Your task to perform on an android device: Open the calendar app, open the side menu, and click the "Day" option Image 0: 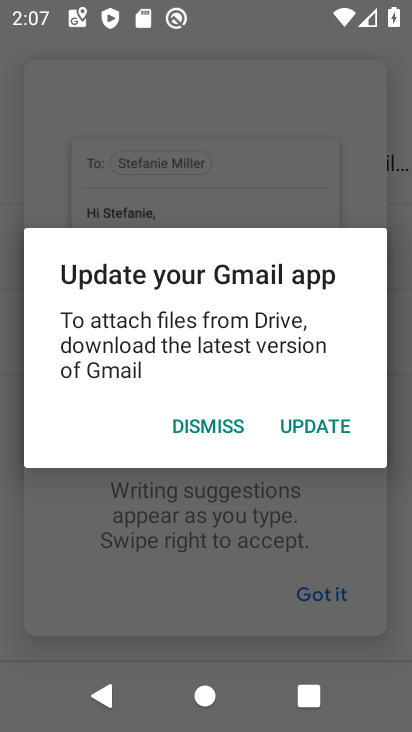
Step 0: press home button
Your task to perform on an android device: Open the calendar app, open the side menu, and click the "Day" option Image 1: 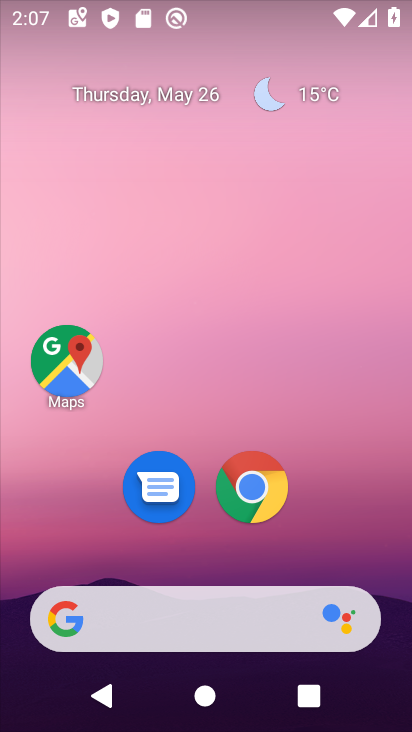
Step 1: drag from (219, 556) to (188, 193)
Your task to perform on an android device: Open the calendar app, open the side menu, and click the "Day" option Image 2: 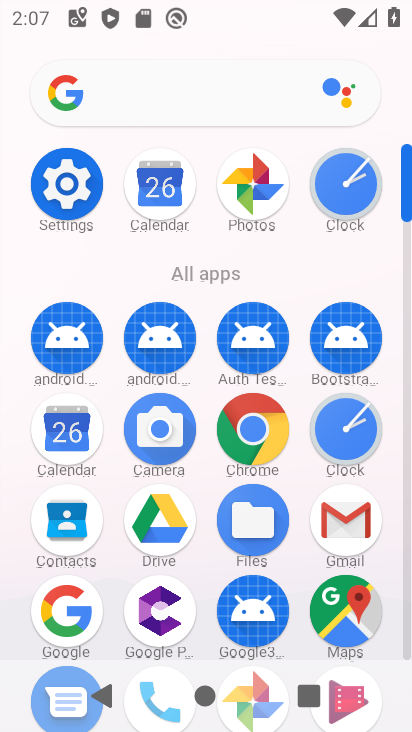
Step 2: click (161, 195)
Your task to perform on an android device: Open the calendar app, open the side menu, and click the "Day" option Image 3: 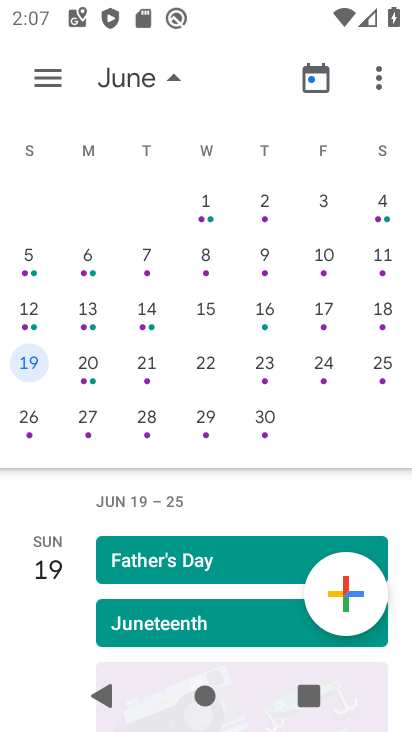
Step 3: click (54, 76)
Your task to perform on an android device: Open the calendar app, open the side menu, and click the "Day" option Image 4: 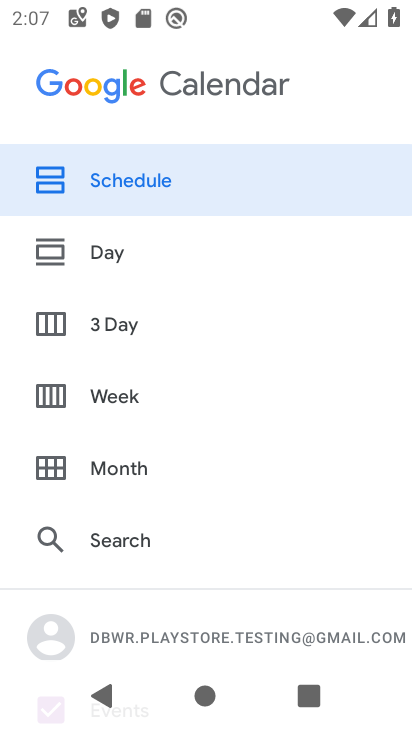
Step 4: click (126, 252)
Your task to perform on an android device: Open the calendar app, open the side menu, and click the "Day" option Image 5: 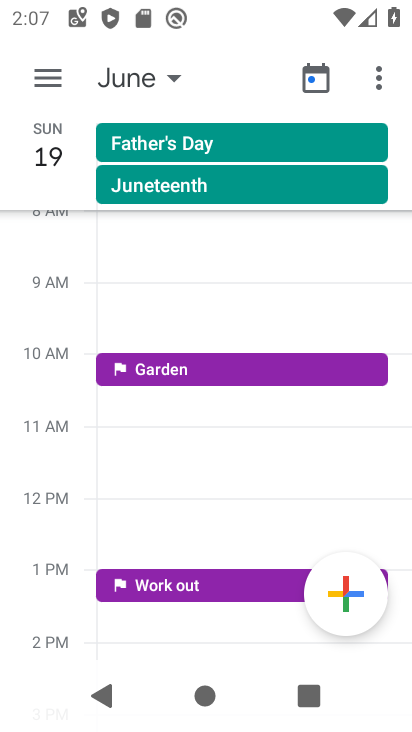
Step 5: task complete